Your task to perform on an android device: open wifi settings Image 0: 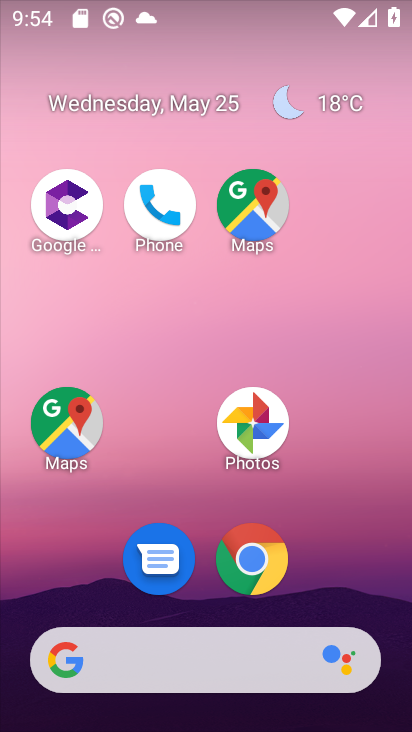
Step 0: drag from (388, 590) to (302, 163)
Your task to perform on an android device: open wifi settings Image 1: 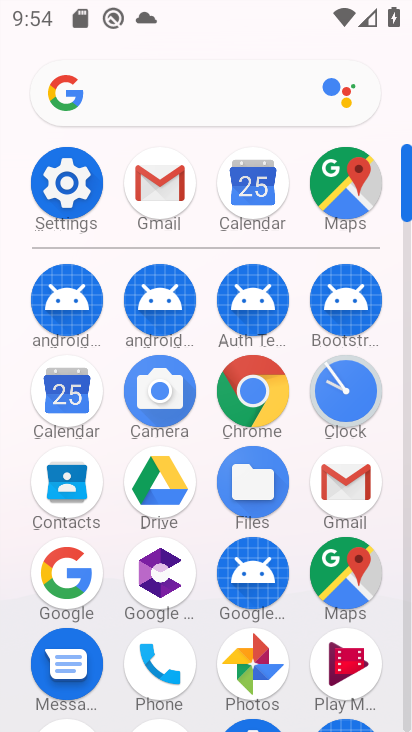
Step 1: click (60, 180)
Your task to perform on an android device: open wifi settings Image 2: 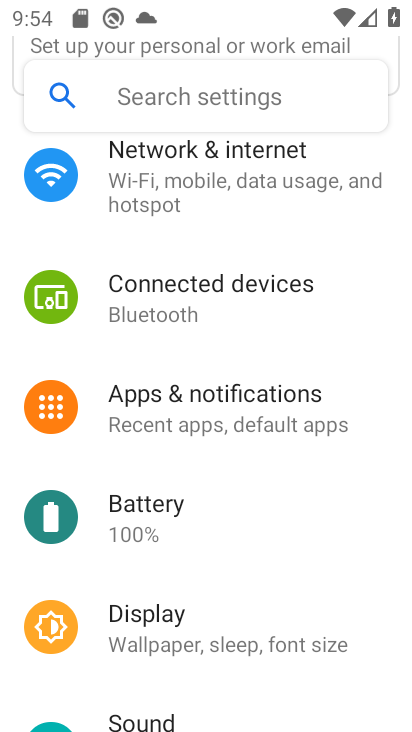
Step 2: click (299, 180)
Your task to perform on an android device: open wifi settings Image 3: 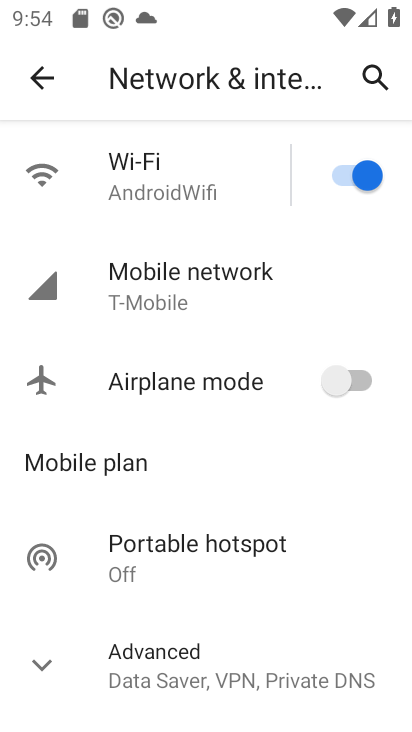
Step 3: click (211, 180)
Your task to perform on an android device: open wifi settings Image 4: 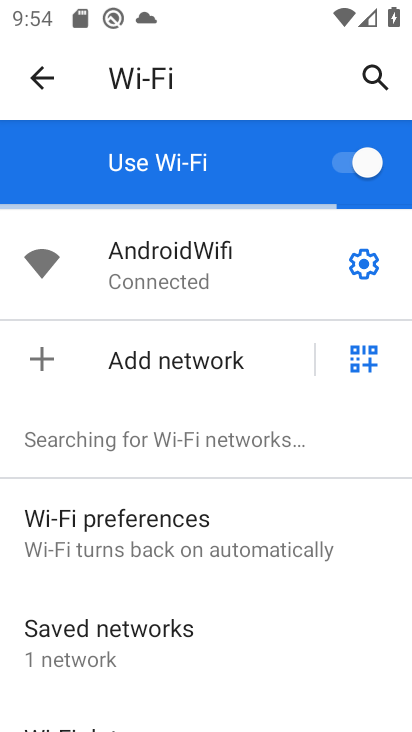
Step 4: task complete